Your task to perform on an android device: Show me popular videos on Youtube Image 0: 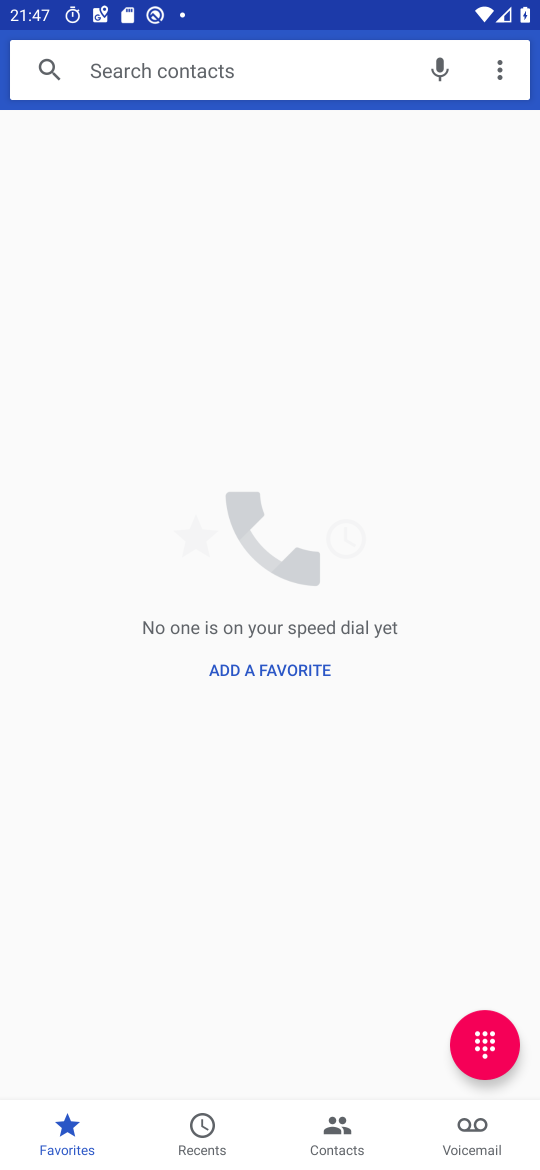
Step 0: press home button
Your task to perform on an android device: Show me popular videos on Youtube Image 1: 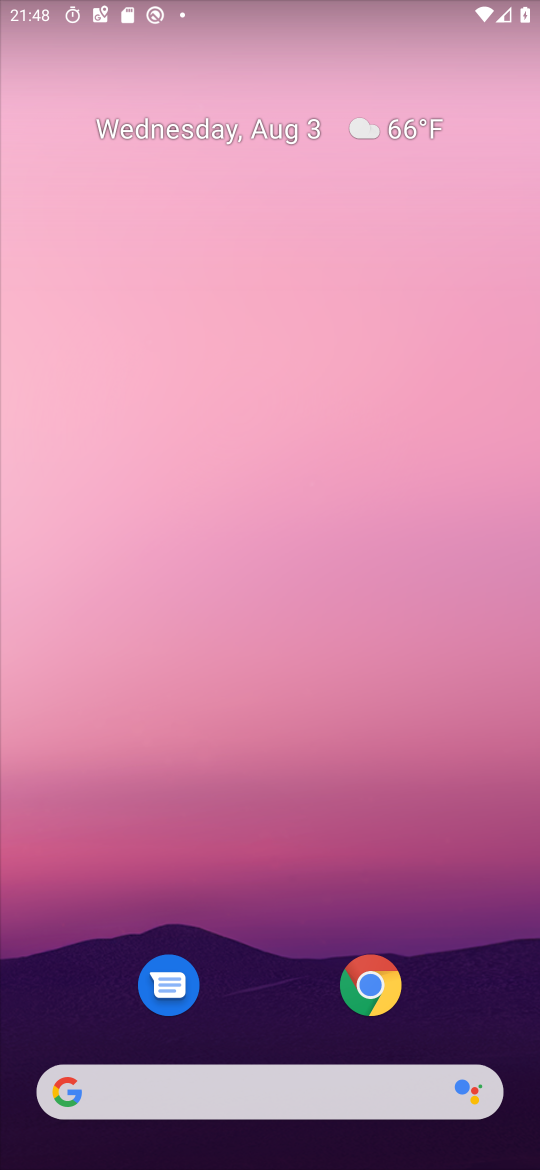
Step 1: drag from (284, 942) to (284, 275)
Your task to perform on an android device: Show me popular videos on Youtube Image 2: 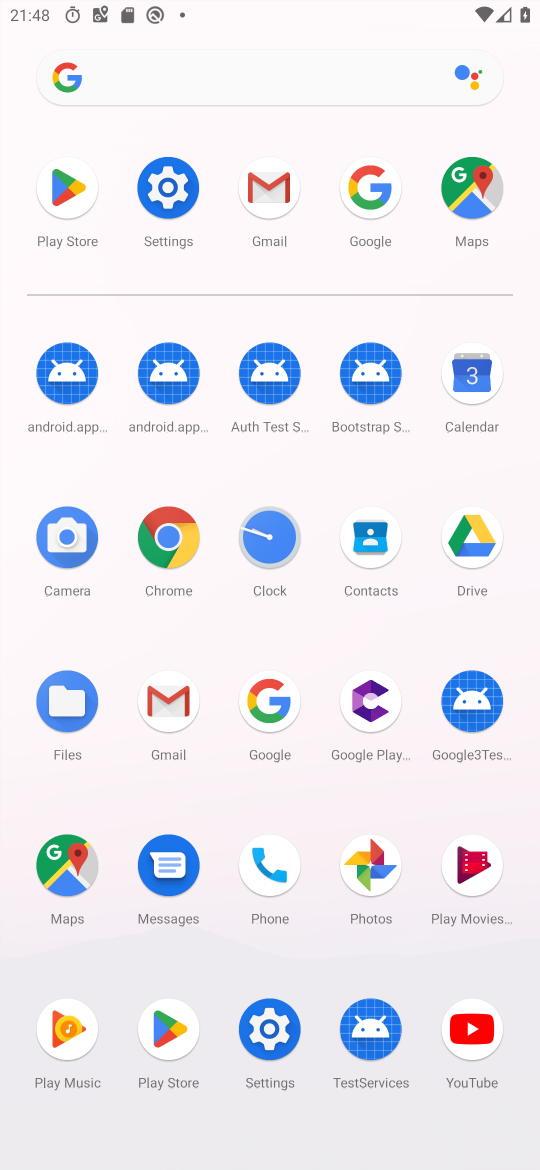
Step 2: click (453, 1030)
Your task to perform on an android device: Show me popular videos on Youtube Image 3: 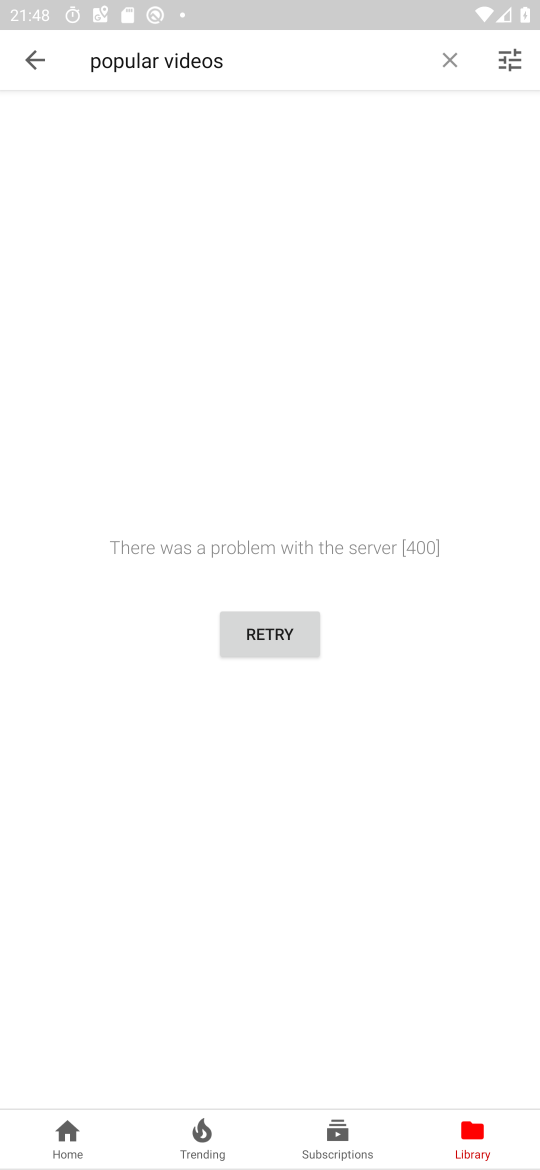
Step 3: task complete